Your task to perform on an android device: change notifications settings Image 0: 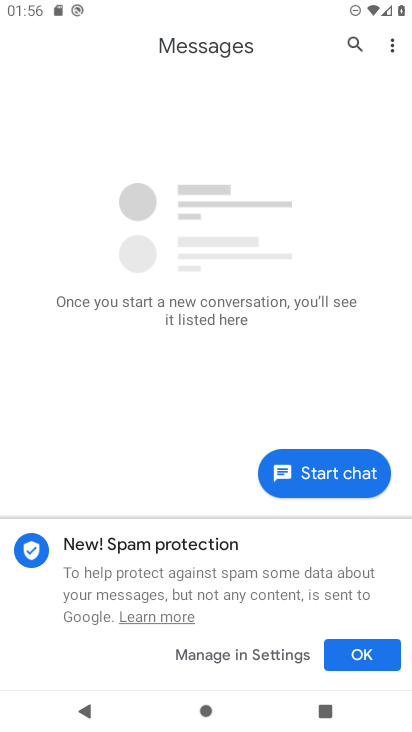
Step 0: press home button
Your task to perform on an android device: change notifications settings Image 1: 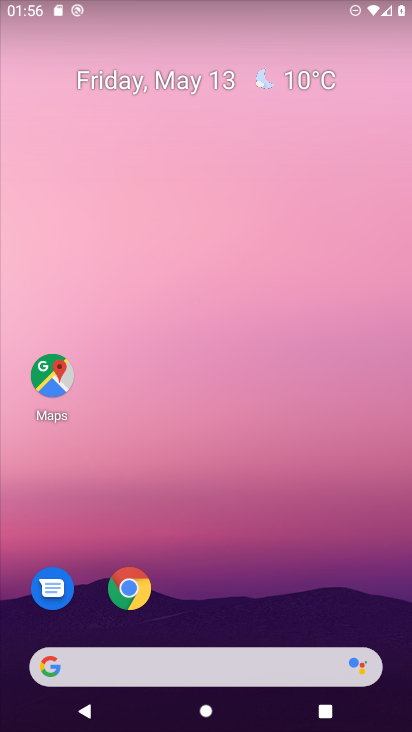
Step 1: drag from (319, 546) to (355, 68)
Your task to perform on an android device: change notifications settings Image 2: 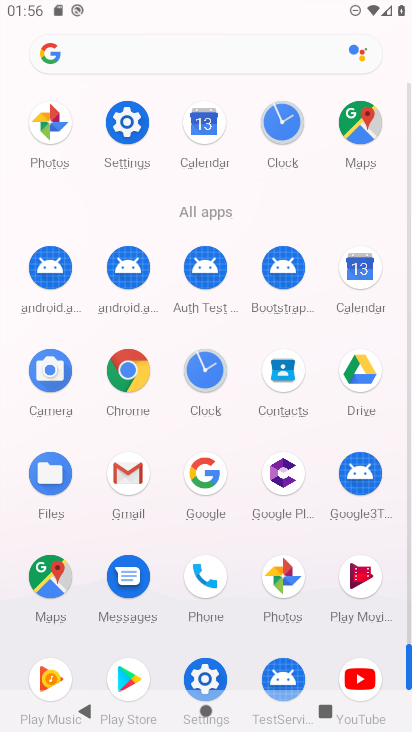
Step 2: click (141, 133)
Your task to perform on an android device: change notifications settings Image 3: 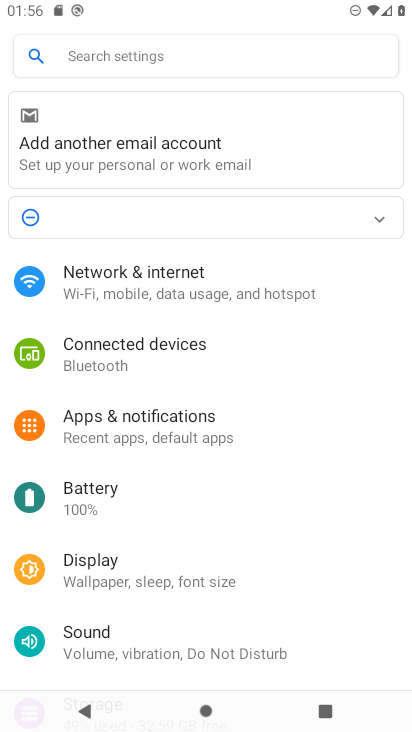
Step 3: click (159, 408)
Your task to perform on an android device: change notifications settings Image 4: 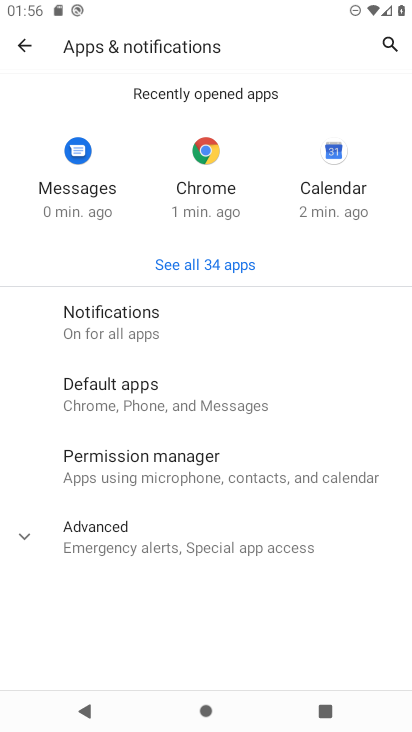
Step 4: click (118, 328)
Your task to perform on an android device: change notifications settings Image 5: 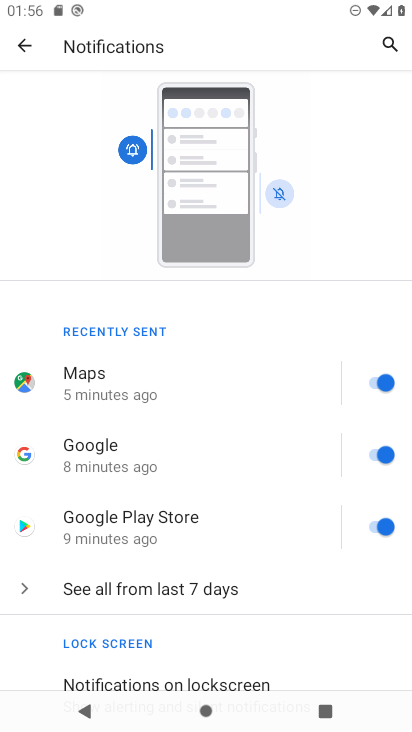
Step 5: drag from (284, 594) to (275, 361)
Your task to perform on an android device: change notifications settings Image 6: 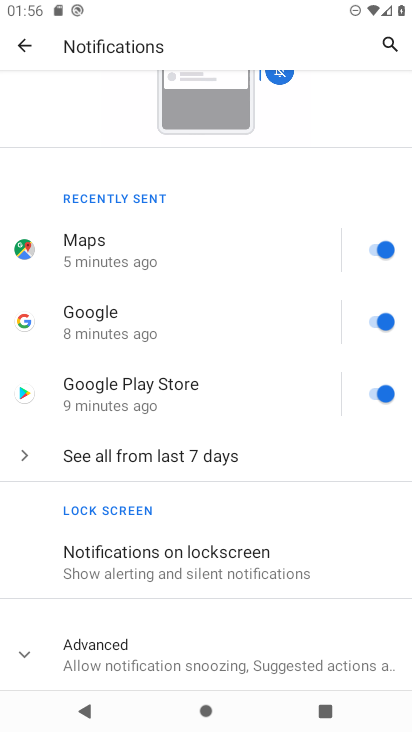
Step 6: click (112, 651)
Your task to perform on an android device: change notifications settings Image 7: 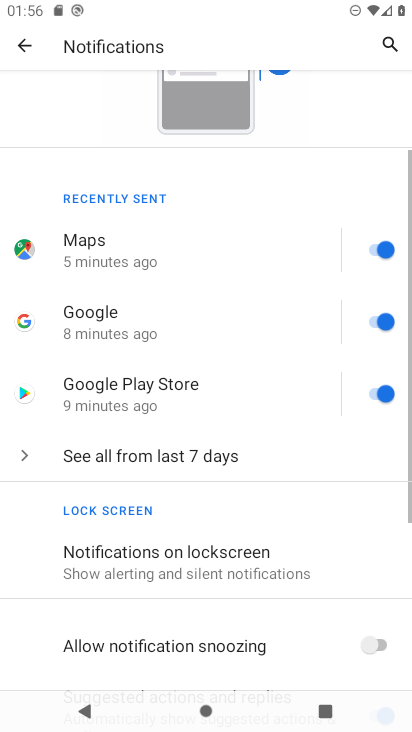
Step 7: drag from (330, 640) to (336, 448)
Your task to perform on an android device: change notifications settings Image 8: 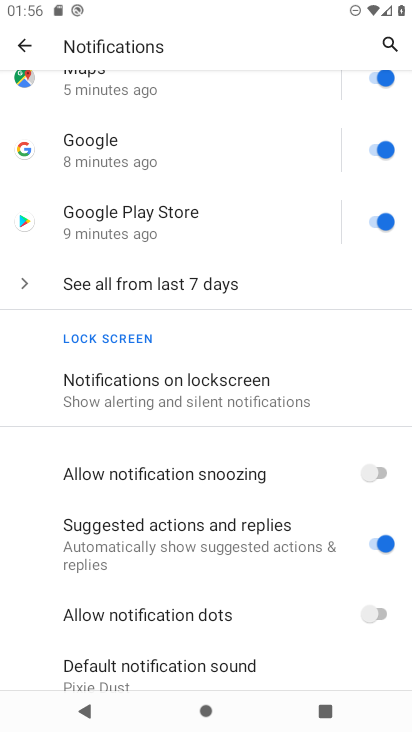
Step 8: click (380, 607)
Your task to perform on an android device: change notifications settings Image 9: 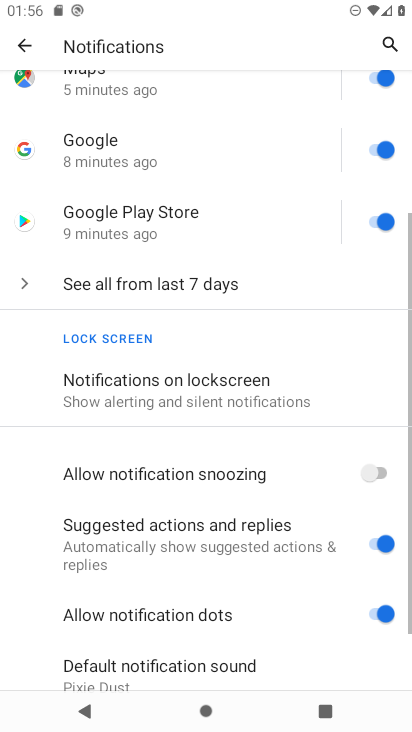
Step 9: task complete